Your task to perform on an android device: Turn on the flashlight Image 0: 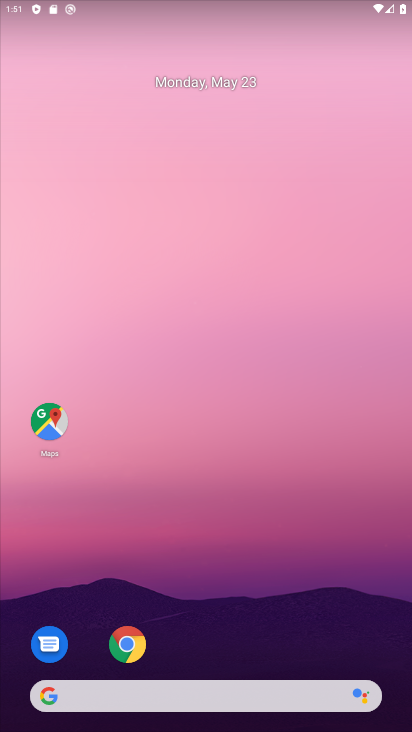
Step 0: drag from (337, 600) to (330, 12)
Your task to perform on an android device: Turn on the flashlight Image 1: 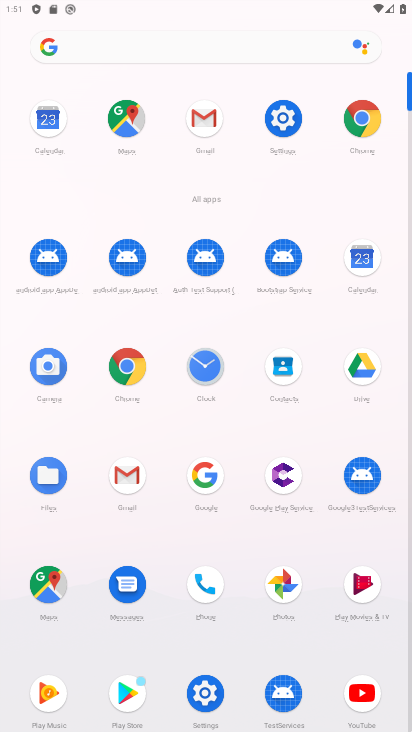
Step 1: click (293, 136)
Your task to perform on an android device: Turn on the flashlight Image 2: 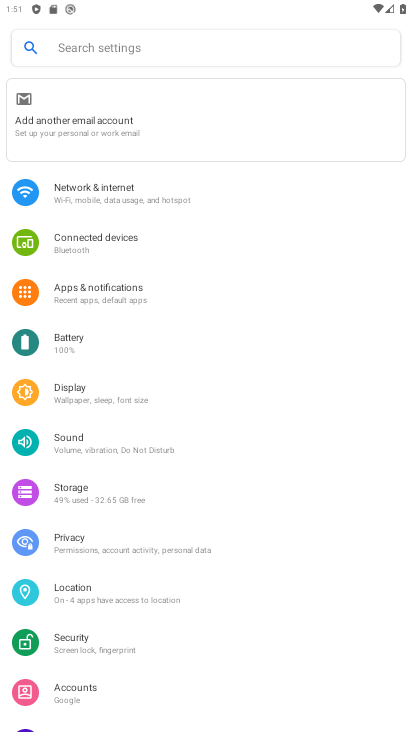
Step 2: task complete